Your task to perform on an android device: turn on airplane mode Image 0: 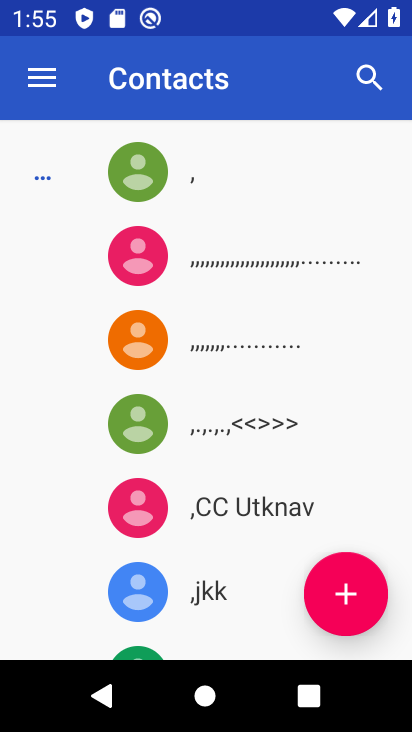
Step 0: press home button
Your task to perform on an android device: turn on airplane mode Image 1: 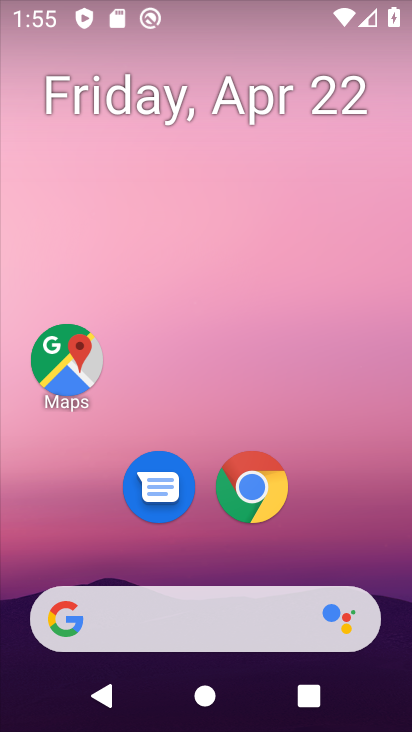
Step 1: drag from (180, 622) to (359, 4)
Your task to perform on an android device: turn on airplane mode Image 2: 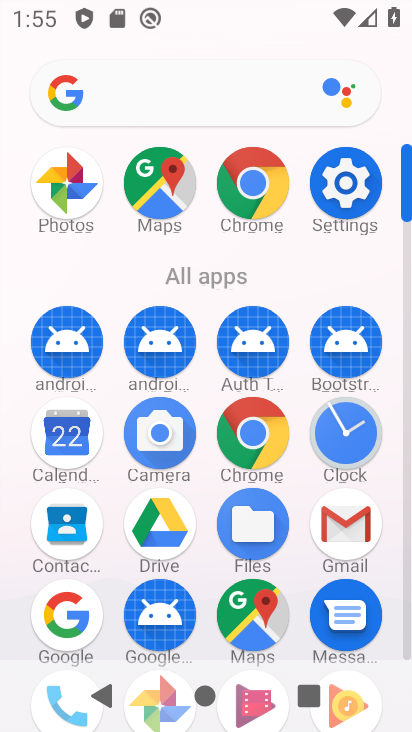
Step 2: click (349, 203)
Your task to perform on an android device: turn on airplane mode Image 3: 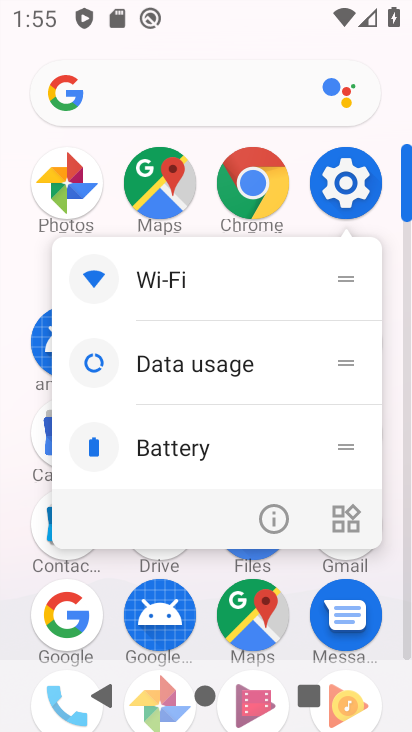
Step 3: click (356, 185)
Your task to perform on an android device: turn on airplane mode Image 4: 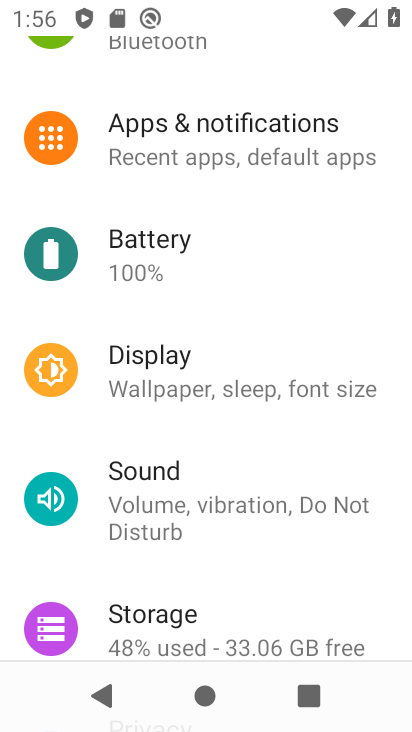
Step 4: drag from (265, 101) to (153, 626)
Your task to perform on an android device: turn on airplane mode Image 5: 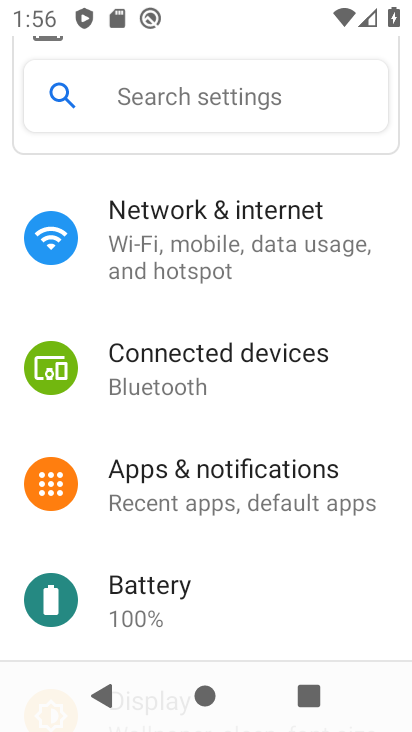
Step 5: click (238, 228)
Your task to perform on an android device: turn on airplane mode Image 6: 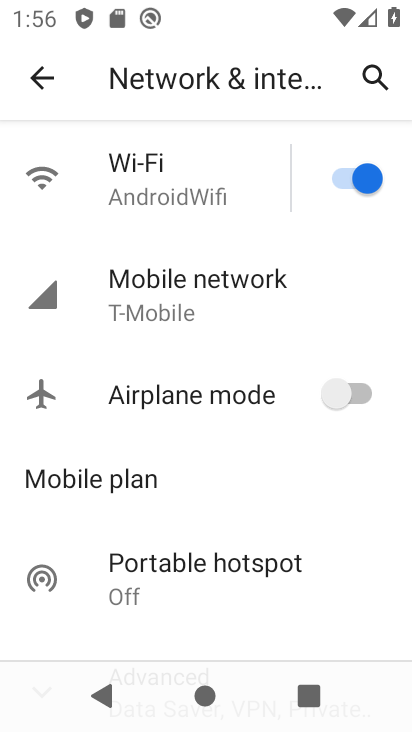
Step 6: click (367, 394)
Your task to perform on an android device: turn on airplane mode Image 7: 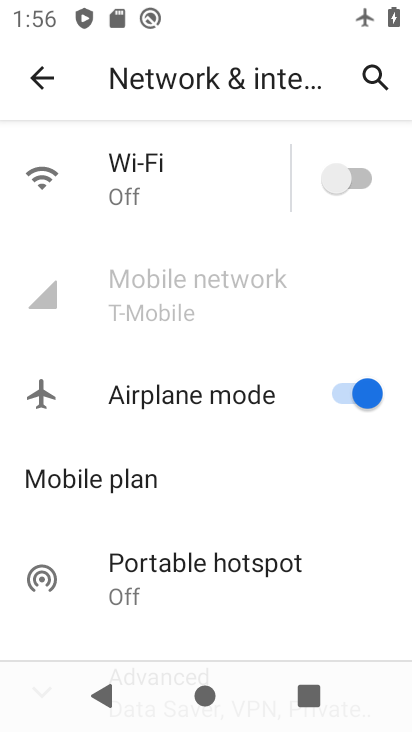
Step 7: task complete